Your task to perform on an android device: snooze an email in the gmail app Image 0: 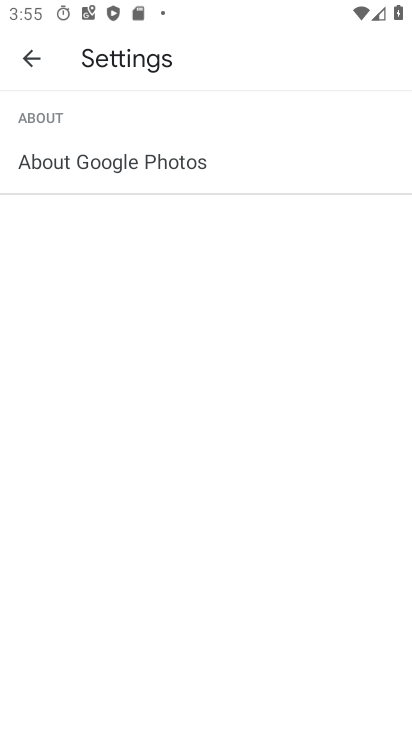
Step 0: press home button
Your task to perform on an android device: snooze an email in the gmail app Image 1: 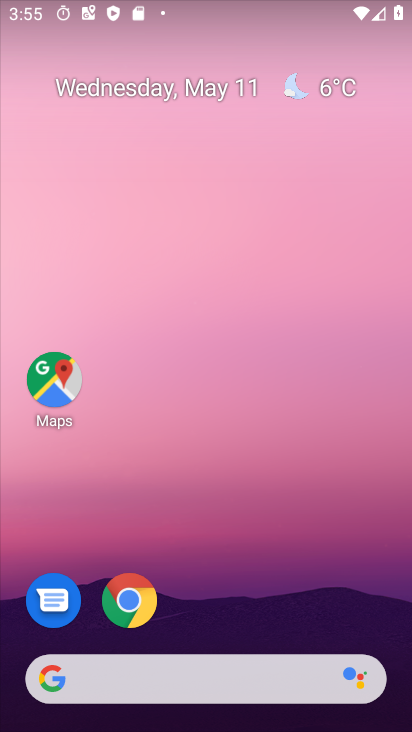
Step 1: drag from (347, 699) to (174, 138)
Your task to perform on an android device: snooze an email in the gmail app Image 2: 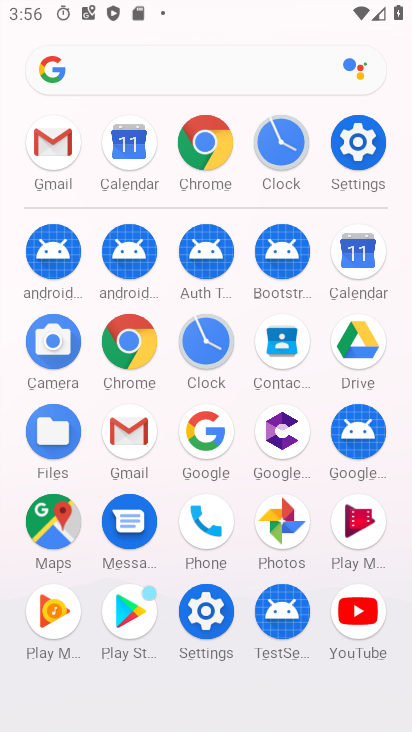
Step 2: click (131, 442)
Your task to perform on an android device: snooze an email in the gmail app Image 3: 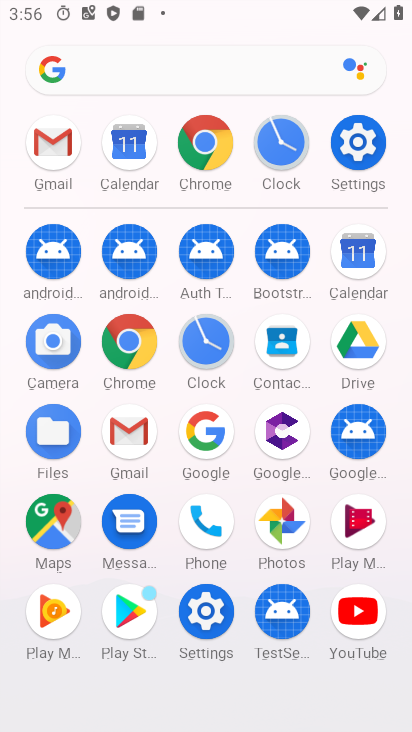
Step 3: click (131, 442)
Your task to perform on an android device: snooze an email in the gmail app Image 4: 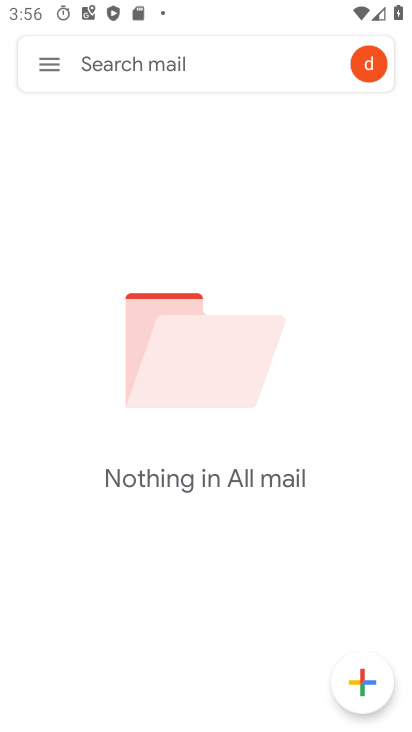
Step 4: click (39, 72)
Your task to perform on an android device: snooze an email in the gmail app Image 5: 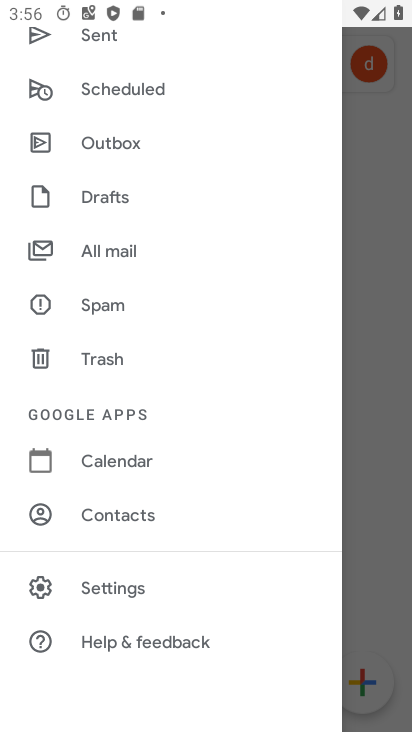
Step 5: click (101, 253)
Your task to perform on an android device: snooze an email in the gmail app Image 6: 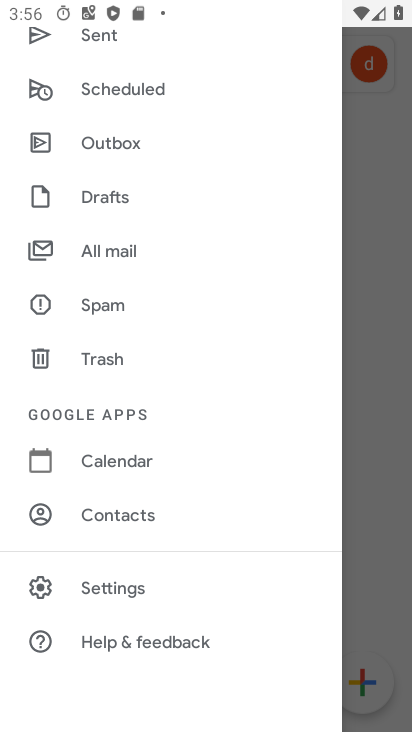
Step 6: click (101, 253)
Your task to perform on an android device: snooze an email in the gmail app Image 7: 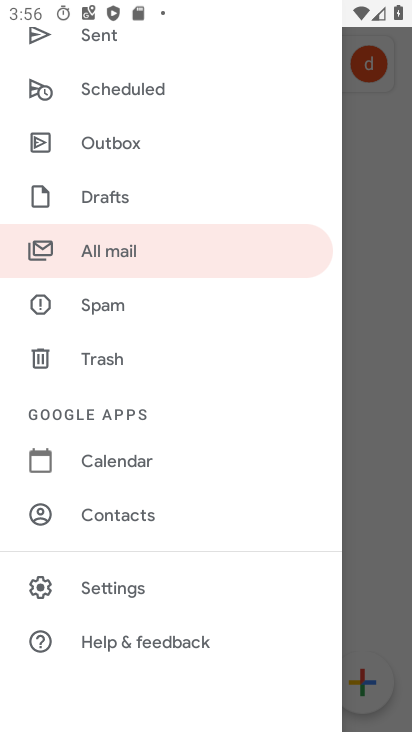
Step 7: drag from (127, 193) to (117, 698)
Your task to perform on an android device: snooze an email in the gmail app Image 8: 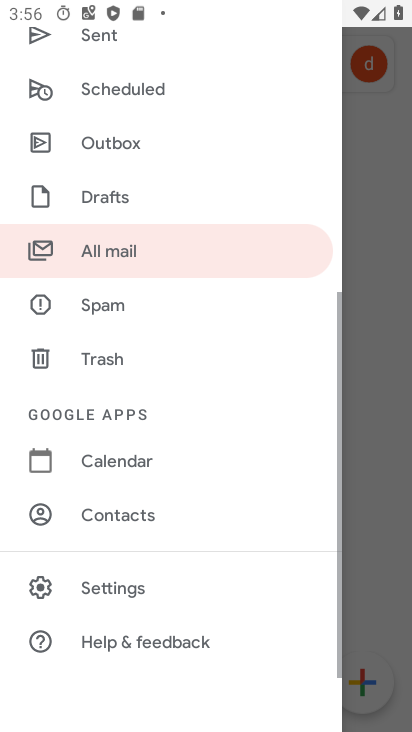
Step 8: drag from (160, 135) to (248, 512)
Your task to perform on an android device: snooze an email in the gmail app Image 9: 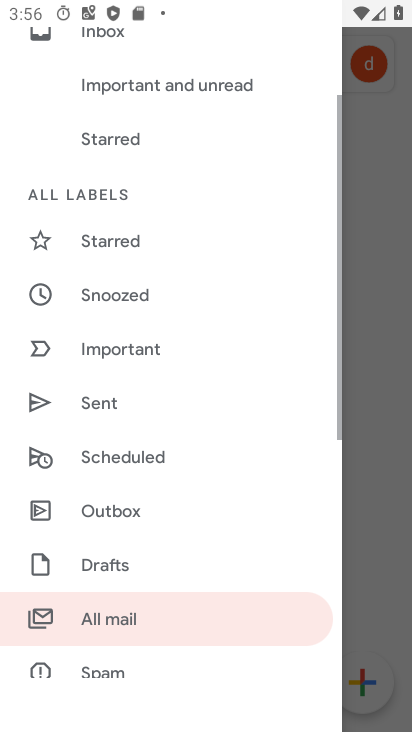
Step 9: drag from (184, 191) to (223, 414)
Your task to perform on an android device: snooze an email in the gmail app Image 10: 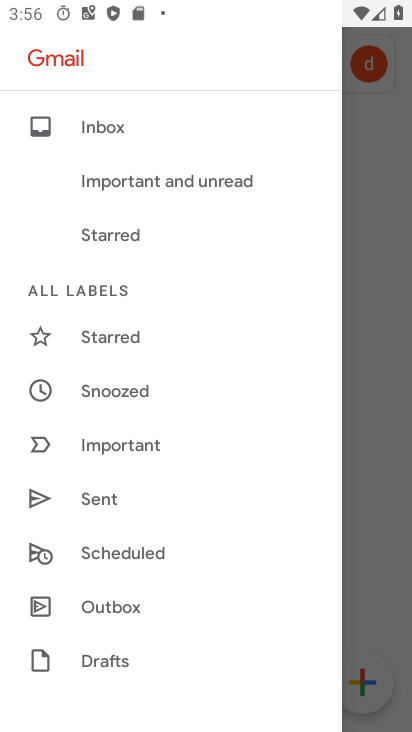
Step 10: drag from (164, 593) to (151, 180)
Your task to perform on an android device: snooze an email in the gmail app Image 11: 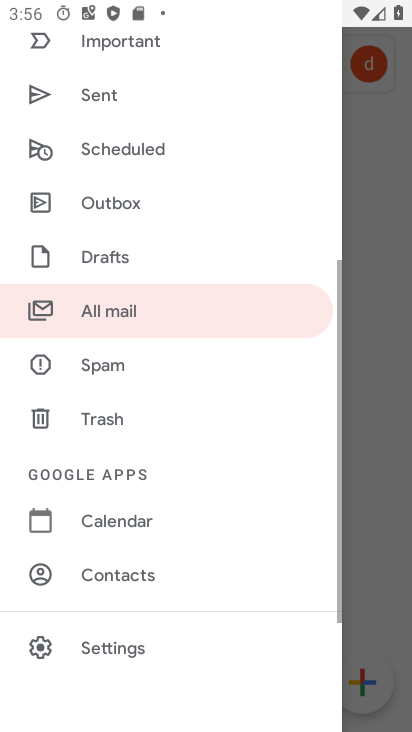
Step 11: drag from (241, 452) to (157, 49)
Your task to perform on an android device: snooze an email in the gmail app Image 12: 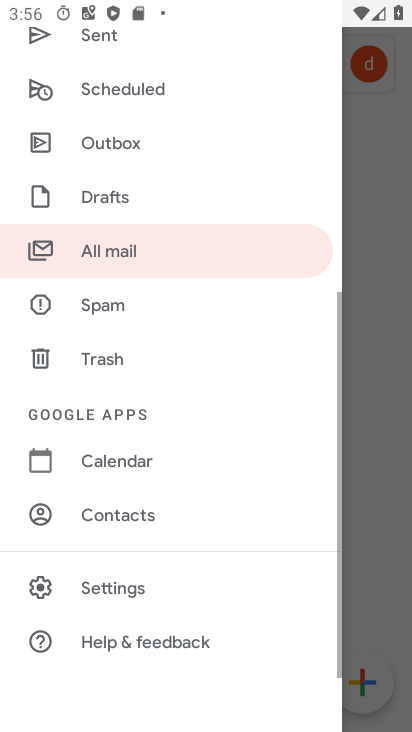
Step 12: click (115, 252)
Your task to perform on an android device: snooze an email in the gmail app Image 13: 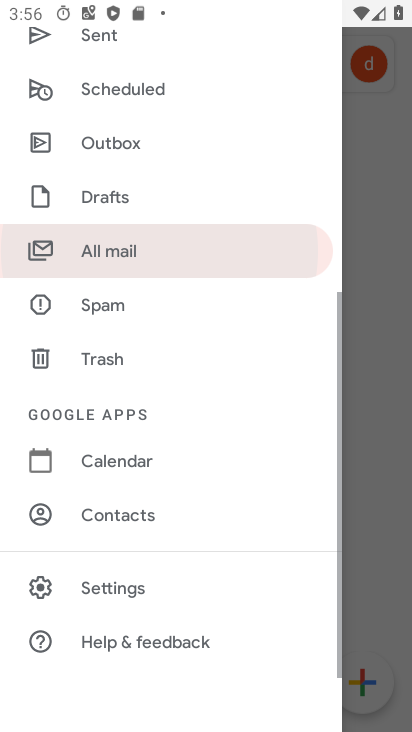
Step 13: click (115, 252)
Your task to perform on an android device: snooze an email in the gmail app Image 14: 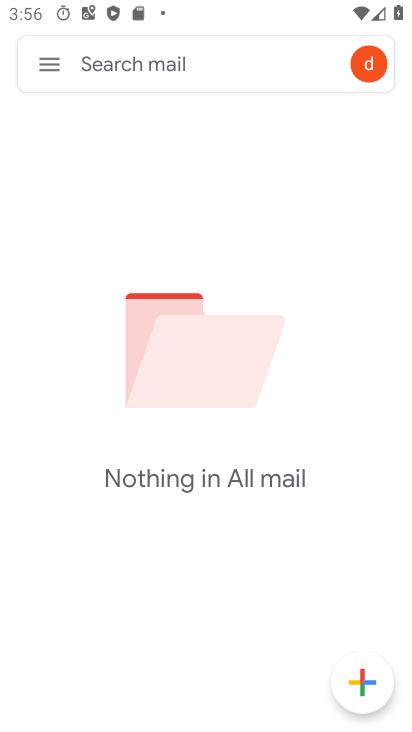
Step 14: task complete